Your task to perform on an android device: Search for pizza restaurants on Maps Image 0: 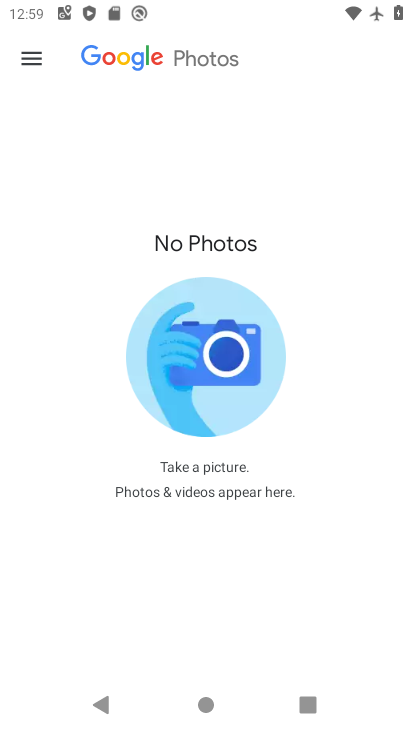
Step 0: press home button
Your task to perform on an android device: Search for pizza restaurants on Maps Image 1: 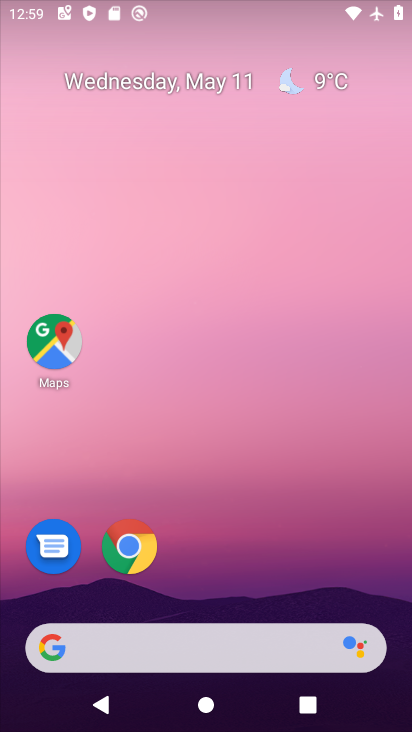
Step 1: drag from (261, 679) to (209, 1)
Your task to perform on an android device: Search for pizza restaurants on Maps Image 2: 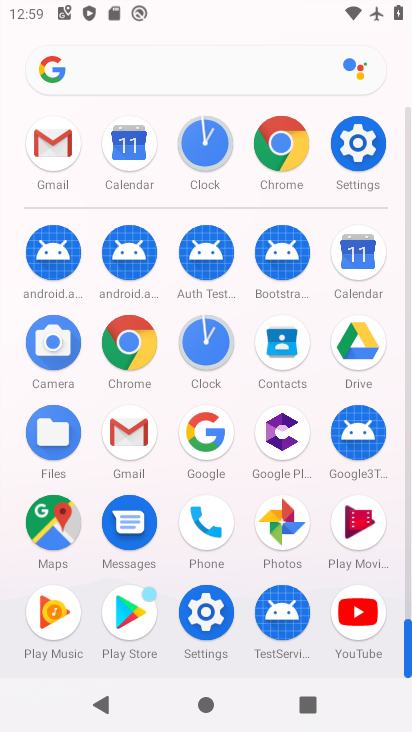
Step 2: click (51, 536)
Your task to perform on an android device: Search for pizza restaurants on Maps Image 3: 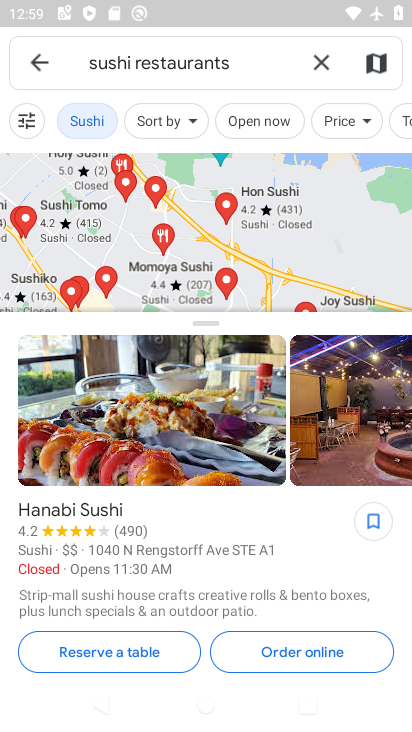
Step 3: click (256, 65)
Your task to perform on an android device: Search for pizza restaurants on Maps Image 4: 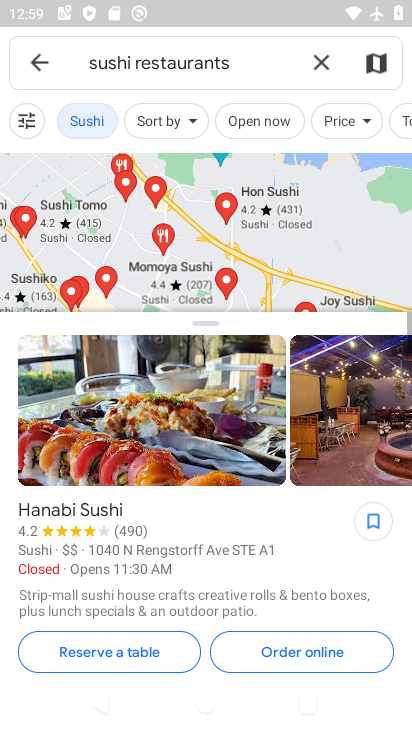
Step 4: click (325, 66)
Your task to perform on an android device: Search for pizza restaurants on Maps Image 5: 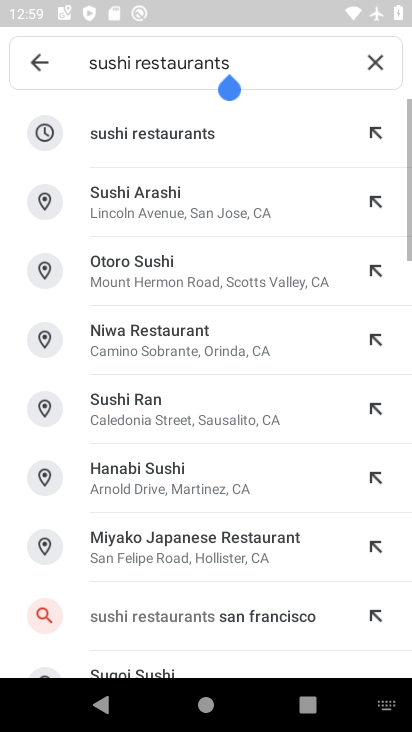
Step 5: click (373, 59)
Your task to perform on an android device: Search for pizza restaurants on Maps Image 6: 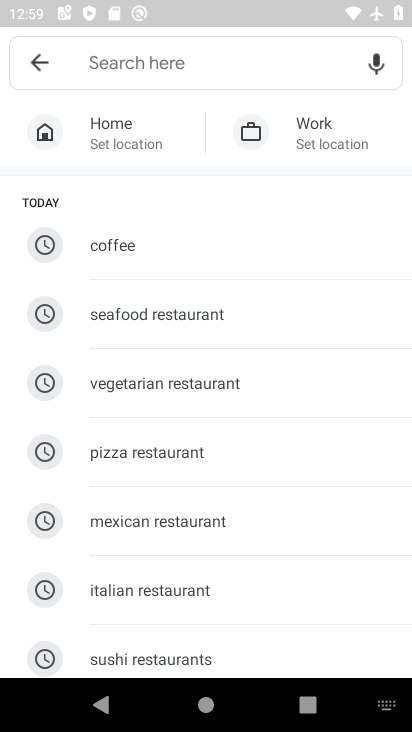
Step 6: click (242, 472)
Your task to perform on an android device: Search for pizza restaurants on Maps Image 7: 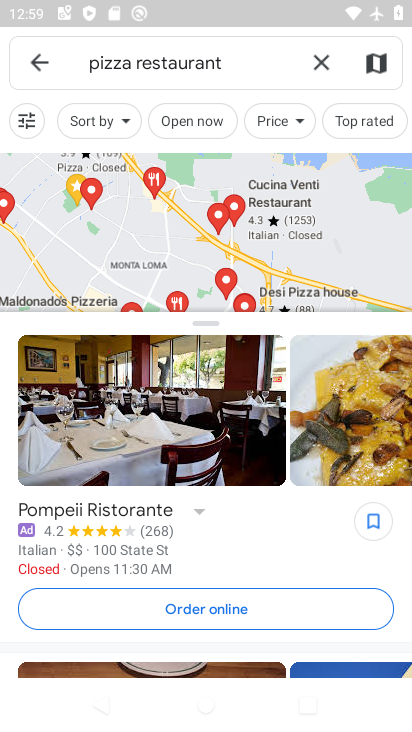
Step 7: task complete